Your task to perform on an android device: Find coffee shops on Maps Image 0: 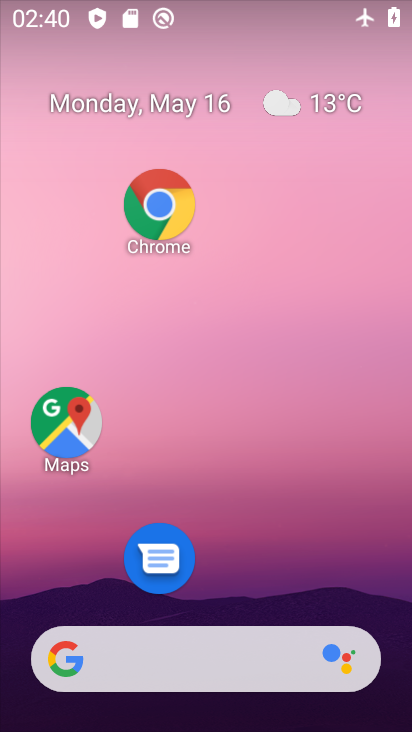
Step 0: click (80, 447)
Your task to perform on an android device: Find coffee shops on Maps Image 1: 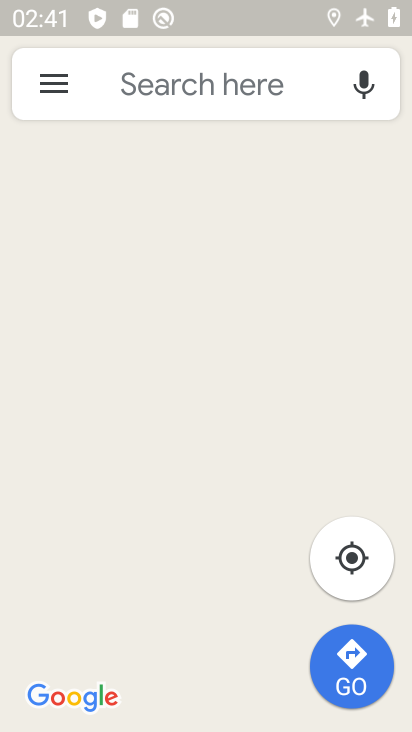
Step 1: click (148, 114)
Your task to perform on an android device: Find coffee shops on Maps Image 2: 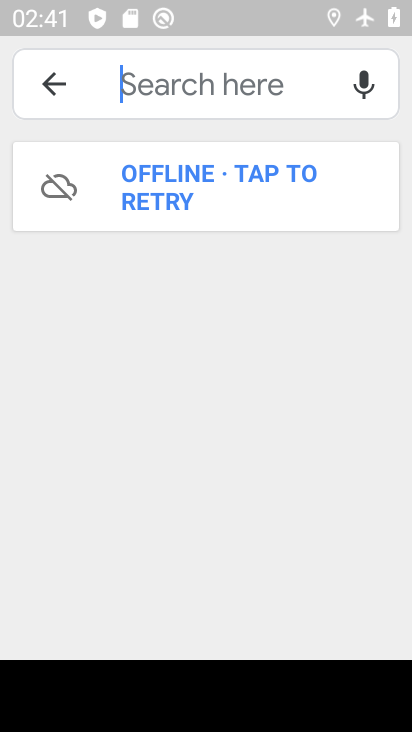
Step 2: click (225, 201)
Your task to perform on an android device: Find coffee shops on Maps Image 3: 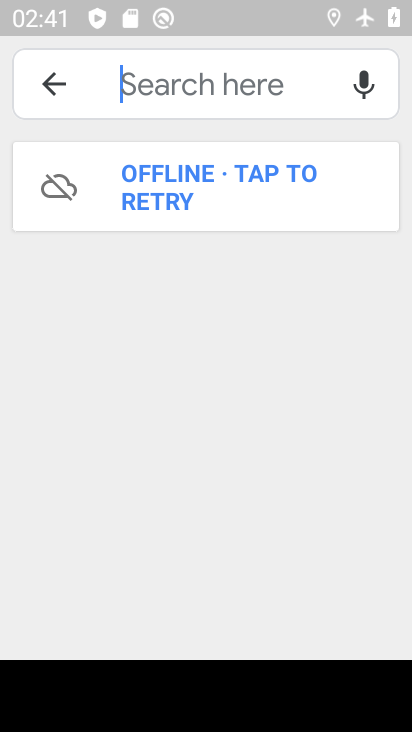
Step 3: task complete